Your task to perform on an android device: find which apps use the phone's location Image 0: 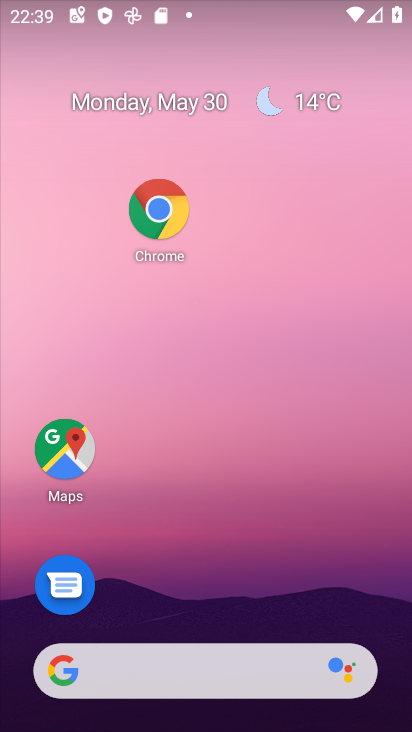
Step 0: drag from (221, 512) to (246, 5)
Your task to perform on an android device: find which apps use the phone's location Image 1: 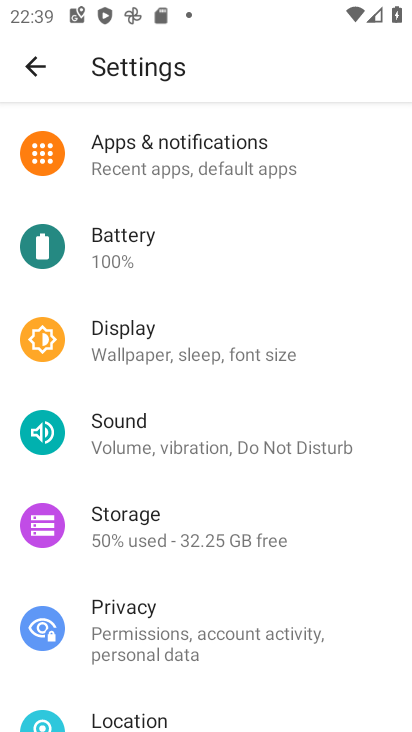
Step 1: drag from (228, 527) to (400, 6)
Your task to perform on an android device: find which apps use the phone's location Image 2: 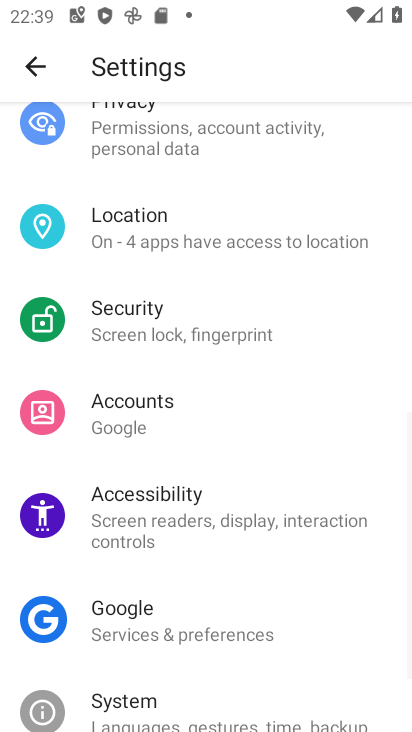
Step 2: click (169, 258)
Your task to perform on an android device: find which apps use the phone's location Image 3: 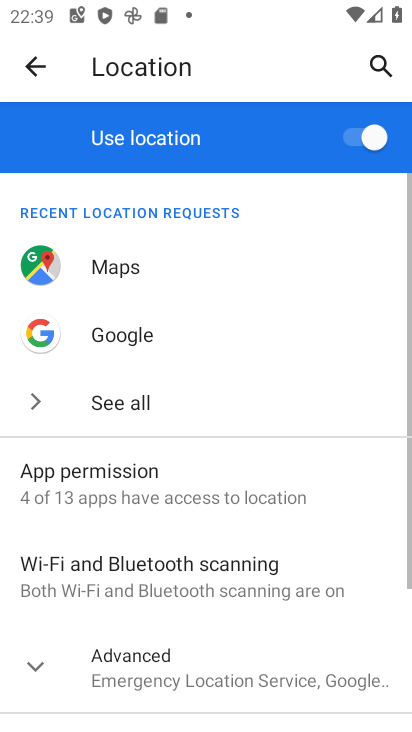
Step 3: click (87, 488)
Your task to perform on an android device: find which apps use the phone's location Image 4: 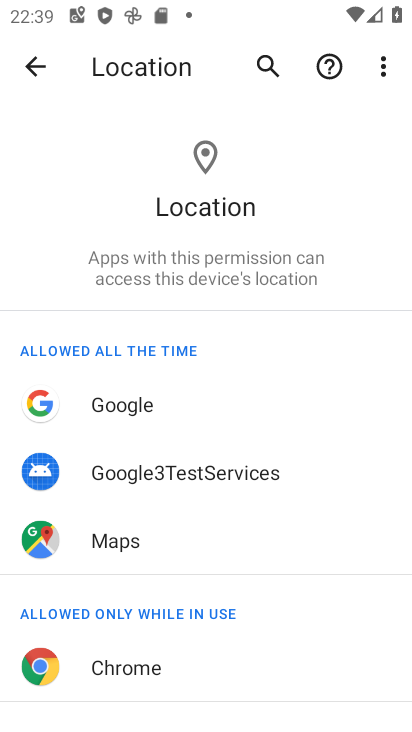
Step 4: task complete